Your task to perform on an android device: Open Google Chrome and click the shortcut for Amazon.com Image 0: 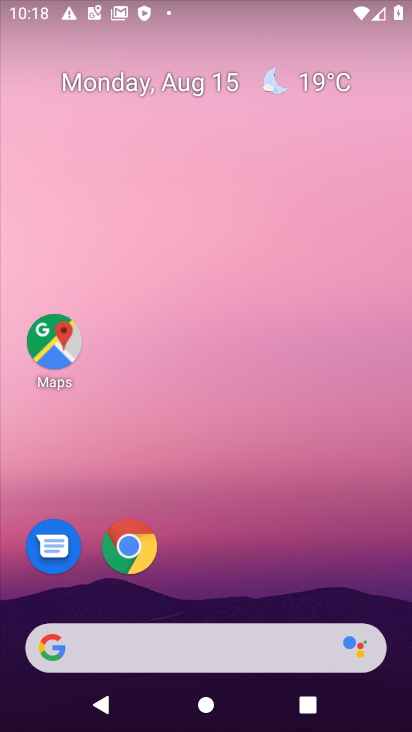
Step 0: click (123, 547)
Your task to perform on an android device: Open Google Chrome and click the shortcut for Amazon.com Image 1: 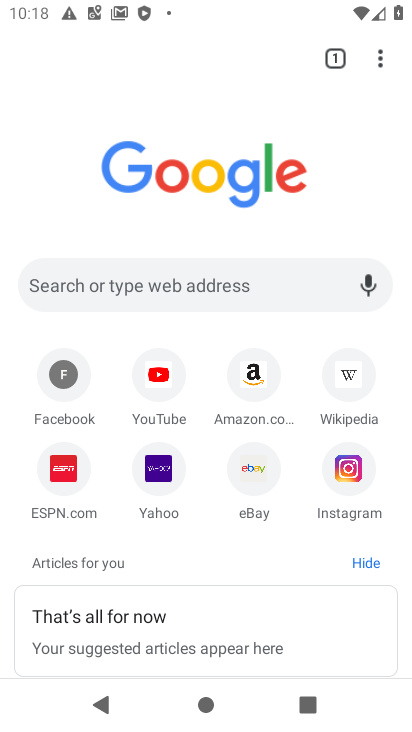
Step 1: click (252, 377)
Your task to perform on an android device: Open Google Chrome and click the shortcut for Amazon.com Image 2: 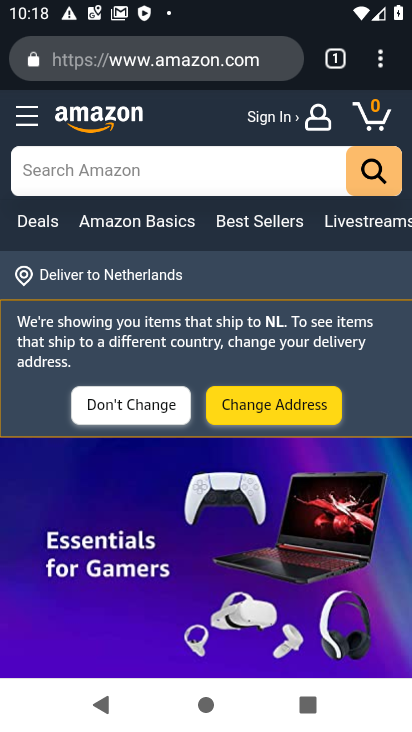
Step 2: task complete